Your task to perform on an android device: Go to settings Image 0: 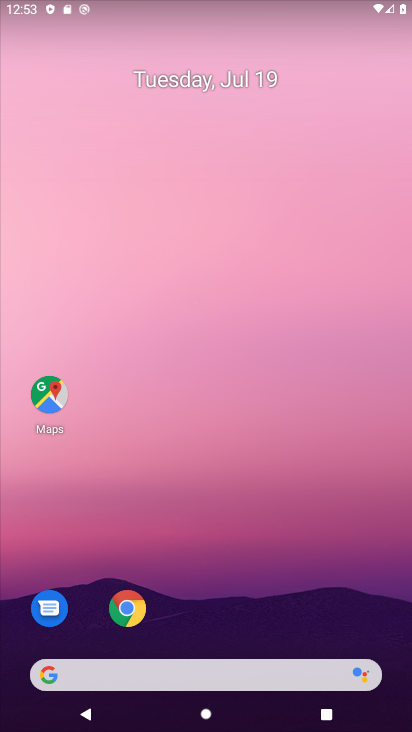
Step 0: drag from (267, 519) to (212, 192)
Your task to perform on an android device: Go to settings Image 1: 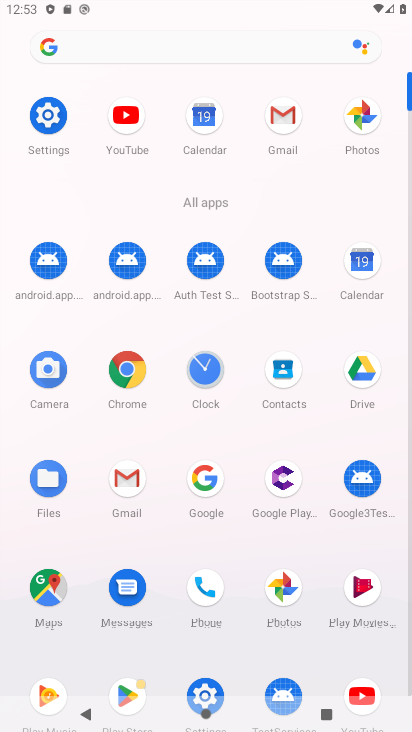
Step 1: click (208, 690)
Your task to perform on an android device: Go to settings Image 2: 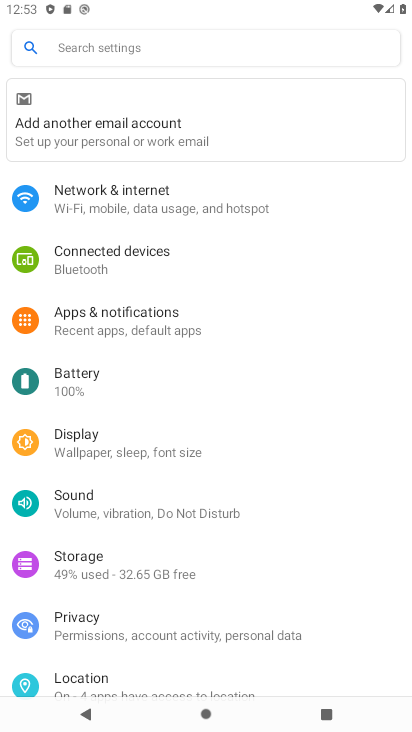
Step 2: task complete